Your task to perform on an android device: Search for seafood restaurants on Google Maps Image 0: 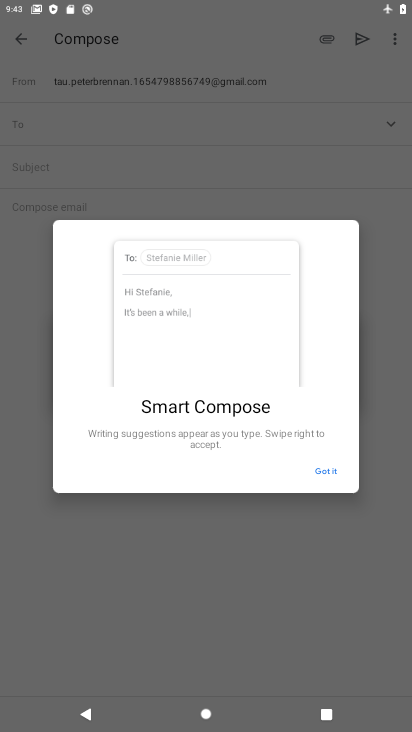
Step 0: press home button
Your task to perform on an android device: Search for seafood restaurants on Google Maps Image 1: 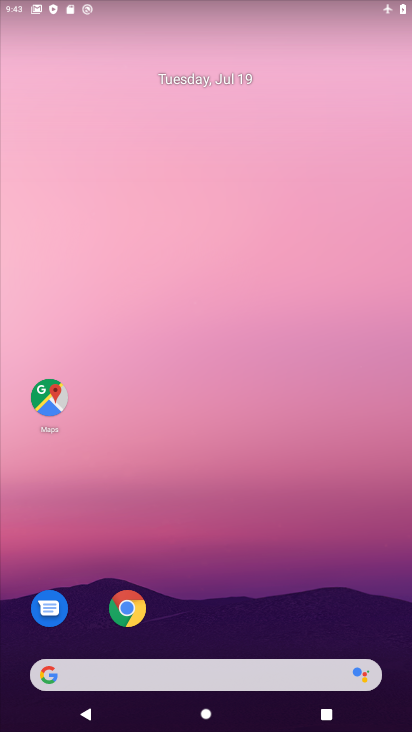
Step 1: drag from (269, 613) to (266, 49)
Your task to perform on an android device: Search for seafood restaurants on Google Maps Image 2: 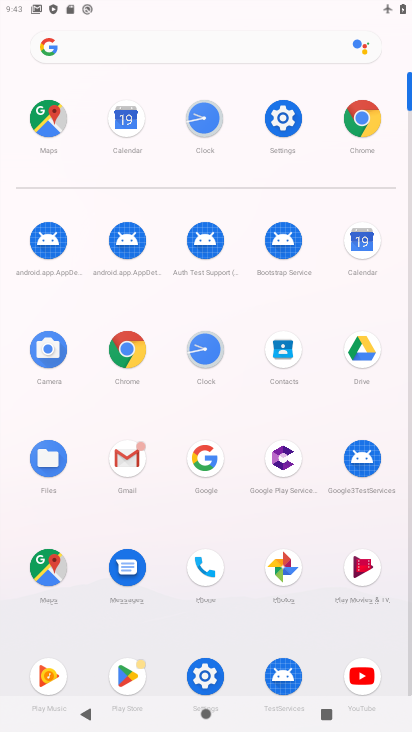
Step 2: click (59, 116)
Your task to perform on an android device: Search for seafood restaurants on Google Maps Image 3: 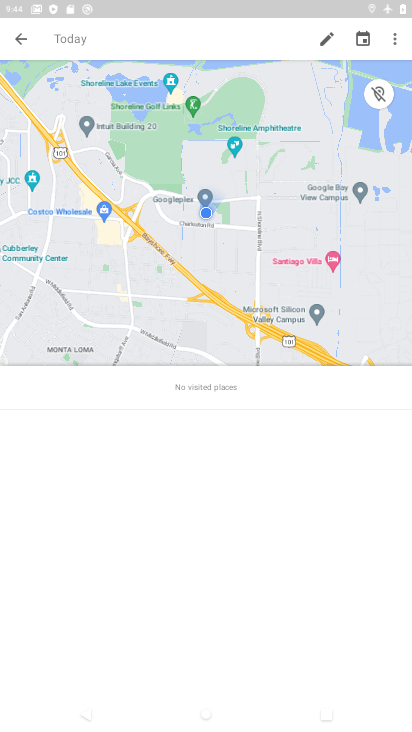
Step 3: click (22, 35)
Your task to perform on an android device: Search for seafood restaurants on Google Maps Image 4: 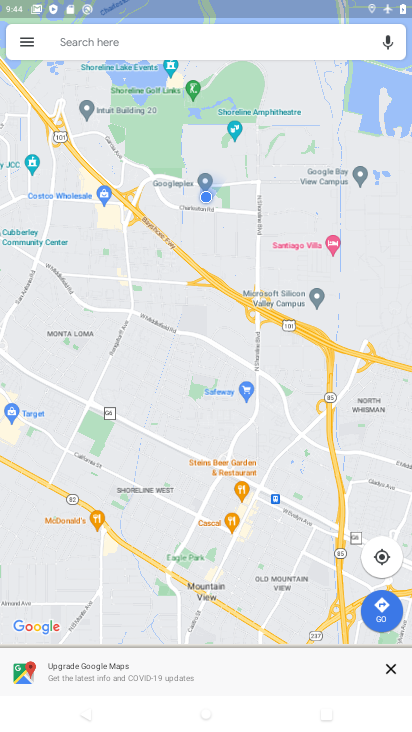
Step 4: click (118, 41)
Your task to perform on an android device: Search for seafood restaurants on Google Maps Image 5: 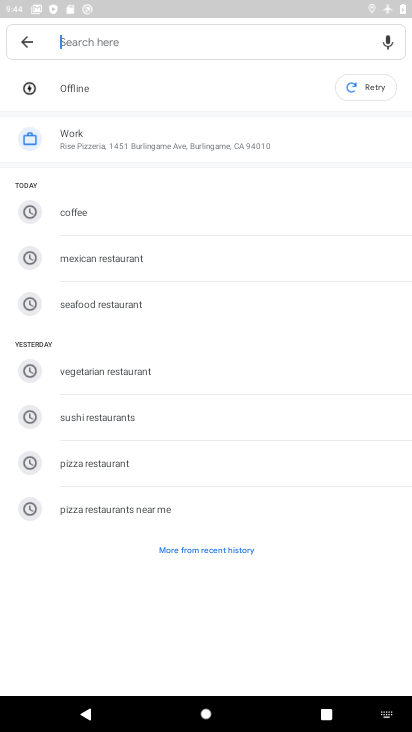
Step 5: type "seafood restaurants"
Your task to perform on an android device: Search for seafood restaurants on Google Maps Image 6: 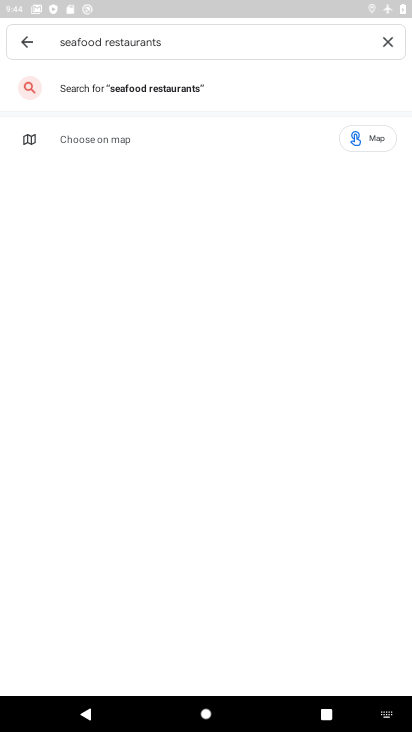
Step 6: press enter
Your task to perform on an android device: Search for seafood restaurants on Google Maps Image 7: 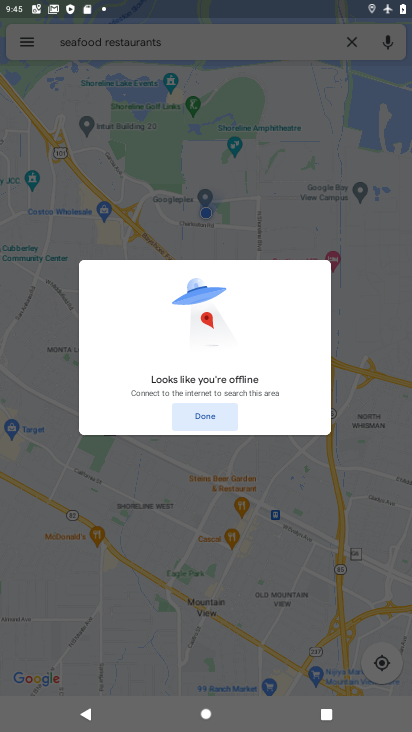
Step 7: task complete